Your task to perform on an android device: Open Google Image 0: 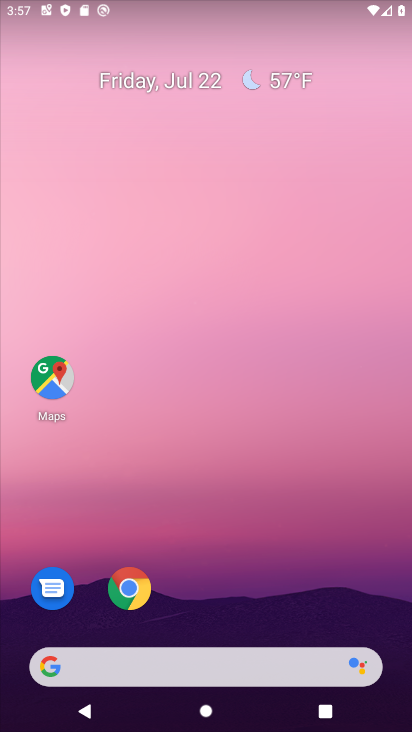
Step 0: drag from (210, 627) to (104, 80)
Your task to perform on an android device: Open Google Image 1: 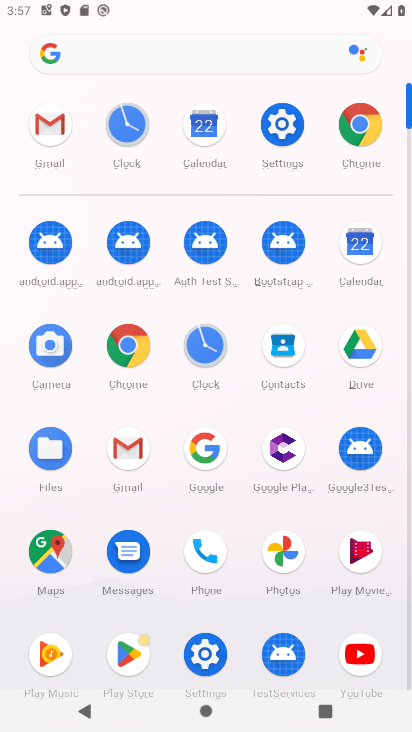
Step 1: click (209, 452)
Your task to perform on an android device: Open Google Image 2: 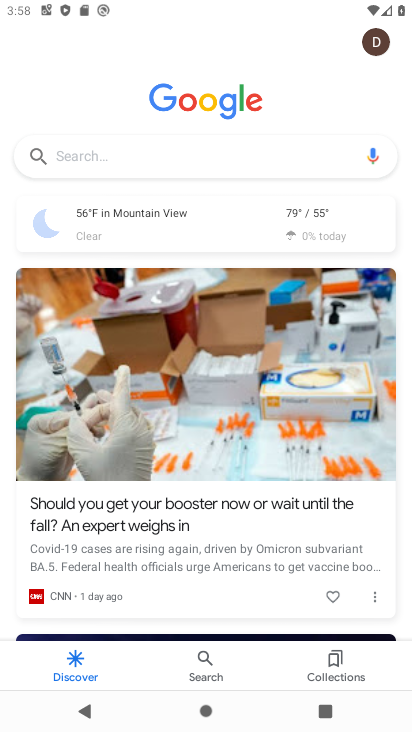
Step 2: task complete